Your task to perform on an android device: turn on notifications settings in the gmail app Image 0: 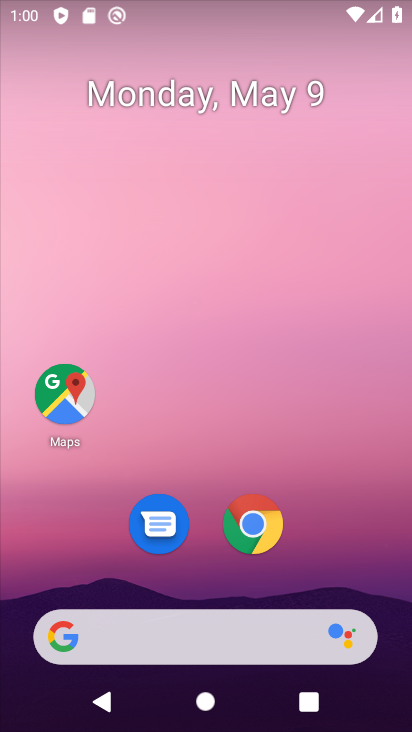
Step 0: drag from (318, 576) to (309, 80)
Your task to perform on an android device: turn on notifications settings in the gmail app Image 1: 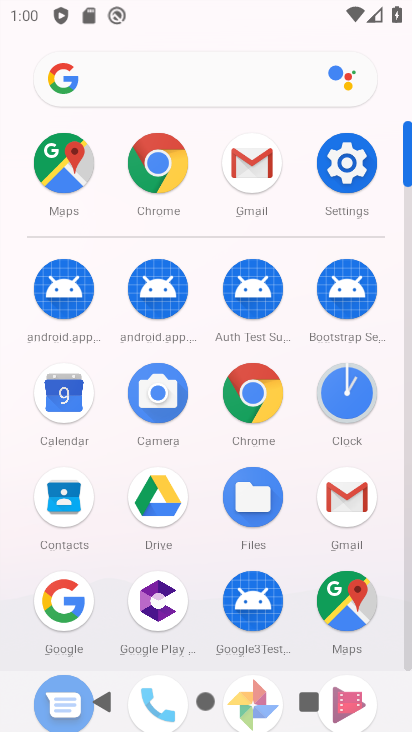
Step 1: click (257, 155)
Your task to perform on an android device: turn on notifications settings in the gmail app Image 2: 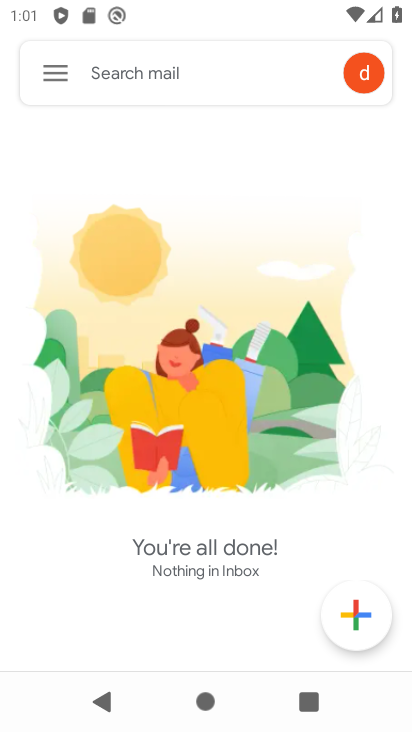
Step 2: click (58, 72)
Your task to perform on an android device: turn on notifications settings in the gmail app Image 3: 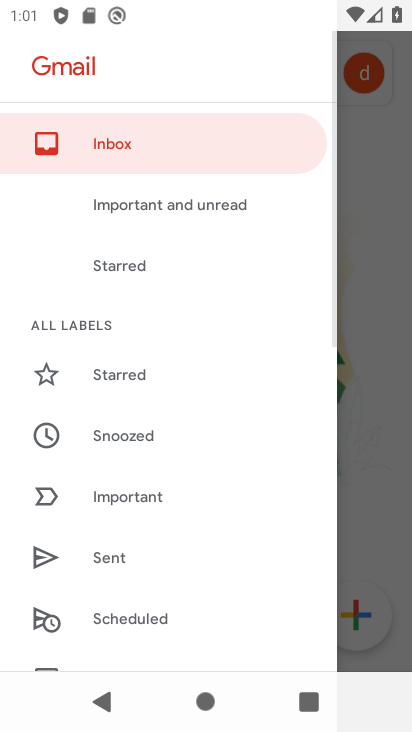
Step 3: drag from (192, 526) to (235, 47)
Your task to perform on an android device: turn on notifications settings in the gmail app Image 4: 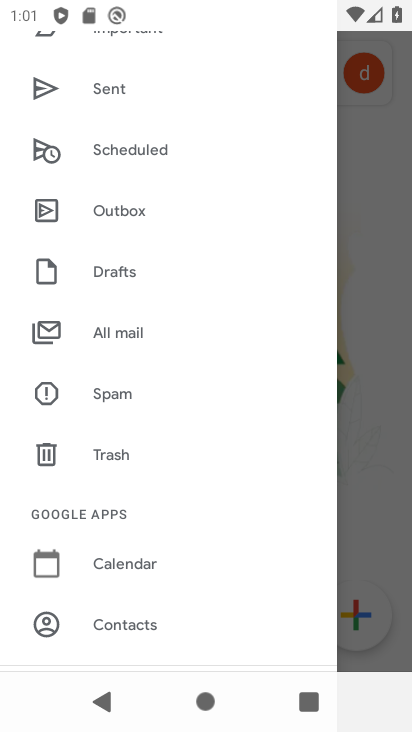
Step 4: drag from (155, 558) to (176, 264)
Your task to perform on an android device: turn on notifications settings in the gmail app Image 5: 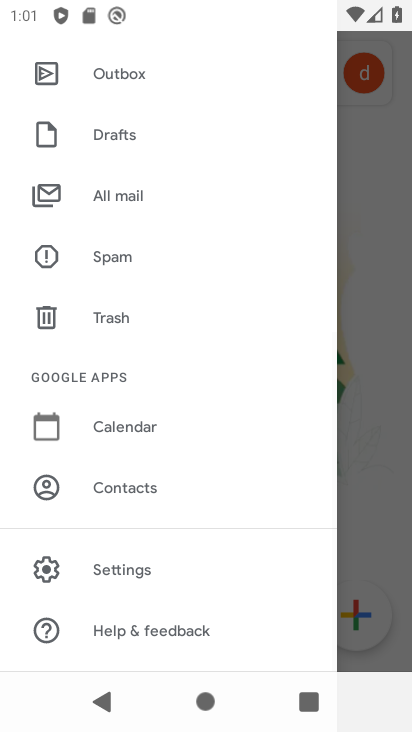
Step 5: click (134, 564)
Your task to perform on an android device: turn on notifications settings in the gmail app Image 6: 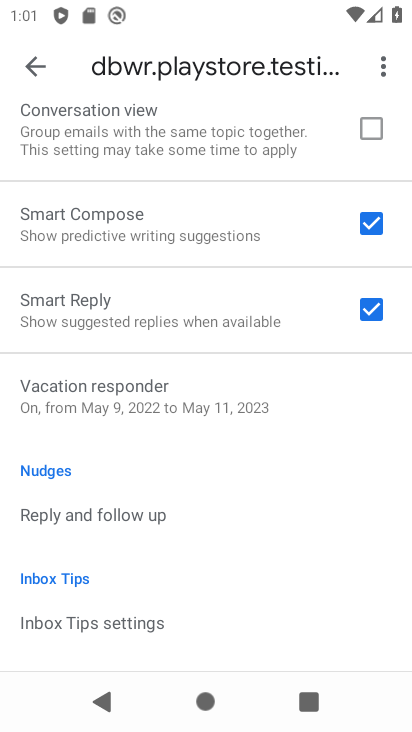
Step 6: drag from (215, 114) to (222, 565)
Your task to perform on an android device: turn on notifications settings in the gmail app Image 7: 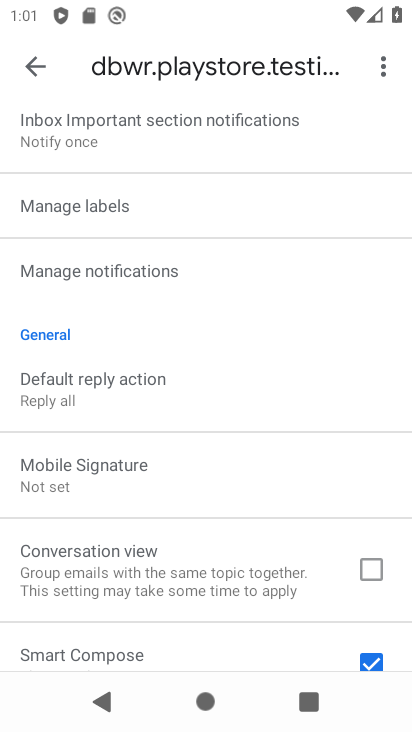
Step 7: click (194, 261)
Your task to perform on an android device: turn on notifications settings in the gmail app Image 8: 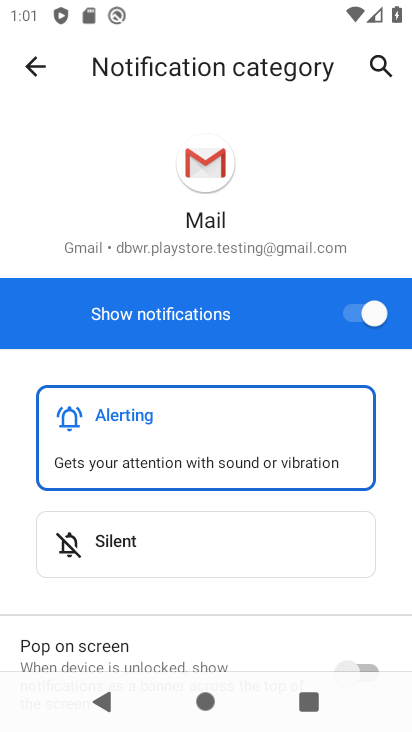
Step 8: task complete